Your task to perform on an android device: set default search engine in the chrome app Image 0: 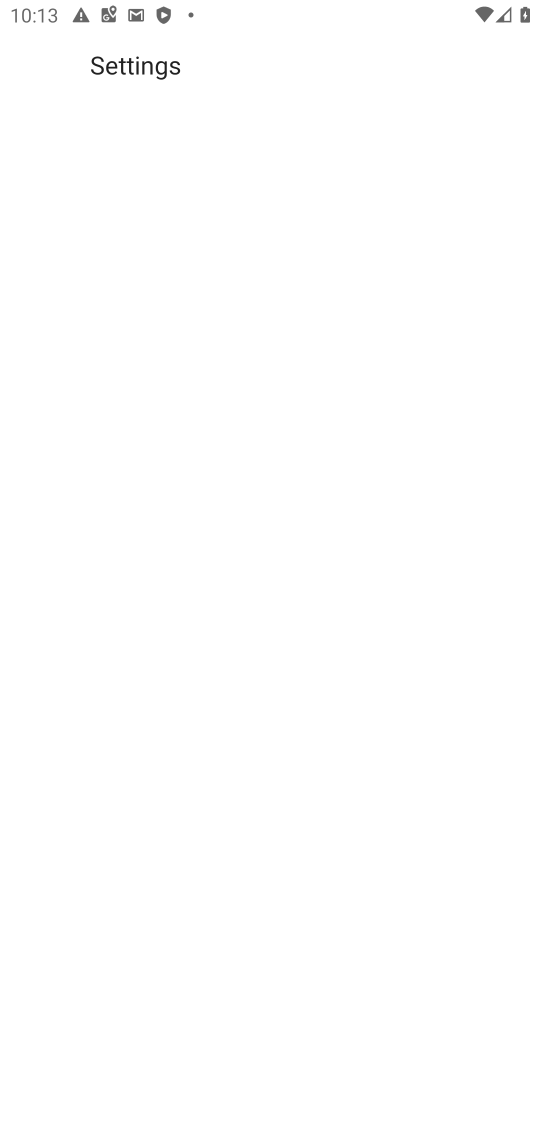
Step 0: drag from (290, 963) to (287, 78)
Your task to perform on an android device: set default search engine in the chrome app Image 1: 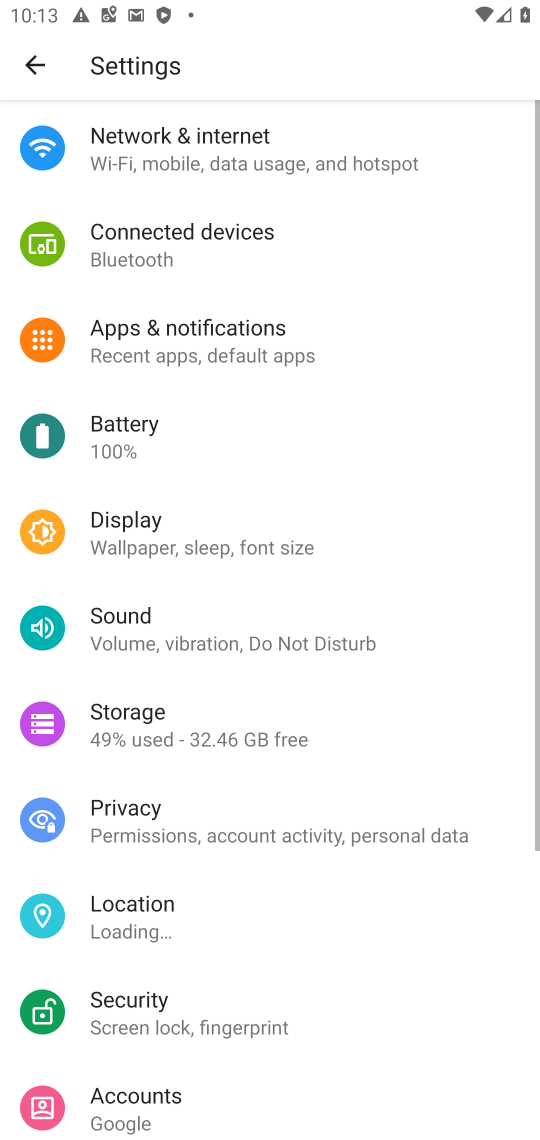
Step 1: press home button
Your task to perform on an android device: set default search engine in the chrome app Image 2: 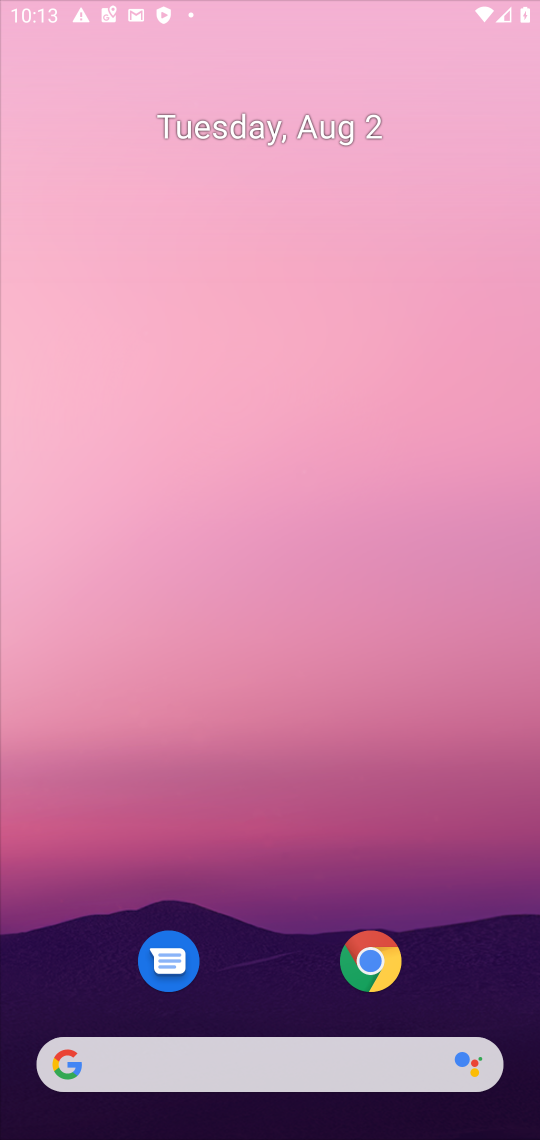
Step 2: drag from (267, 980) to (324, 152)
Your task to perform on an android device: set default search engine in the chrome app Image 3: 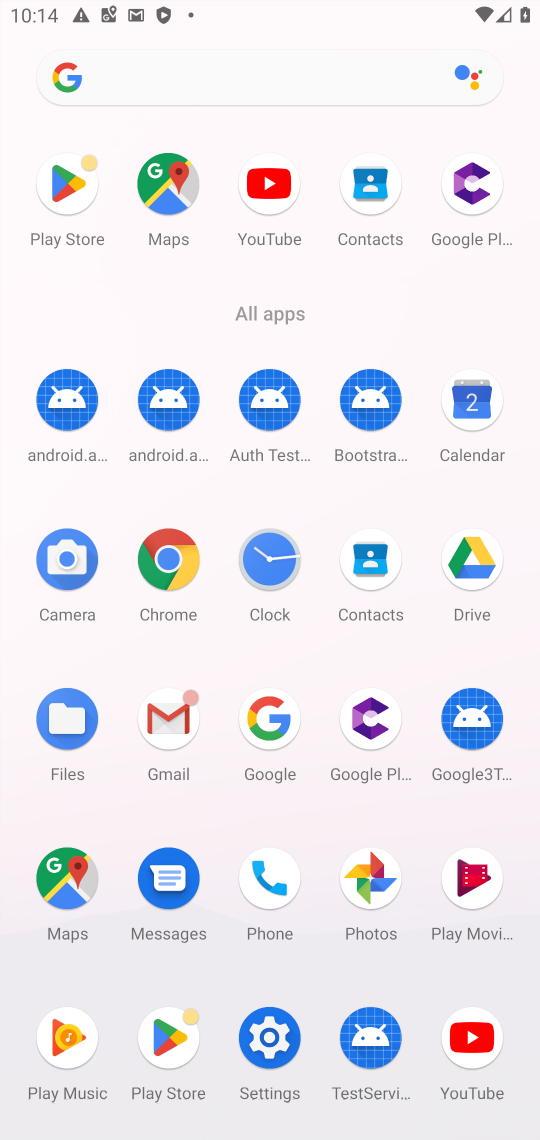
Step 3: click (195, 560)
Your task to perform on an android device: set default search engine in the chrome app Image 4: 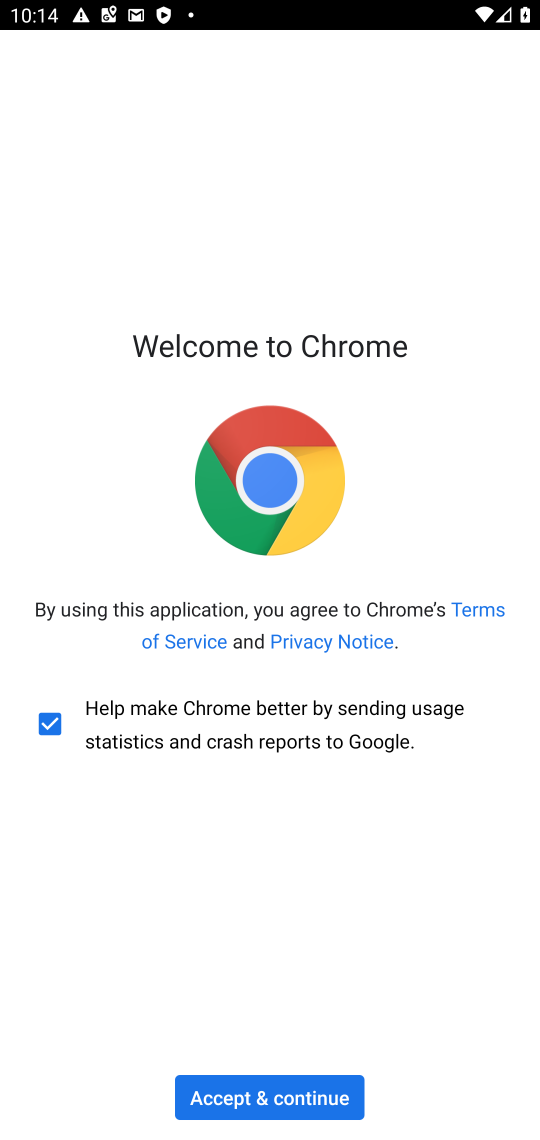
Step 4: click (268, 1096)
Your task to perform on an android device: set default search engine in the chrome app Image 5: 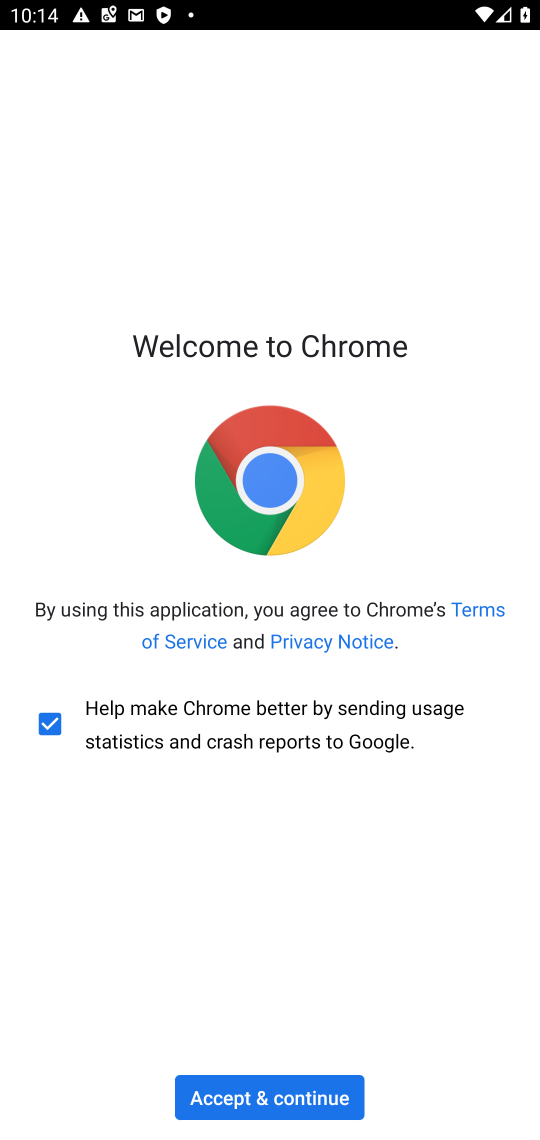
Step 5: click (309, 1104)
Your task to perform on an android device: set default search engine in the chrome app Image 6: 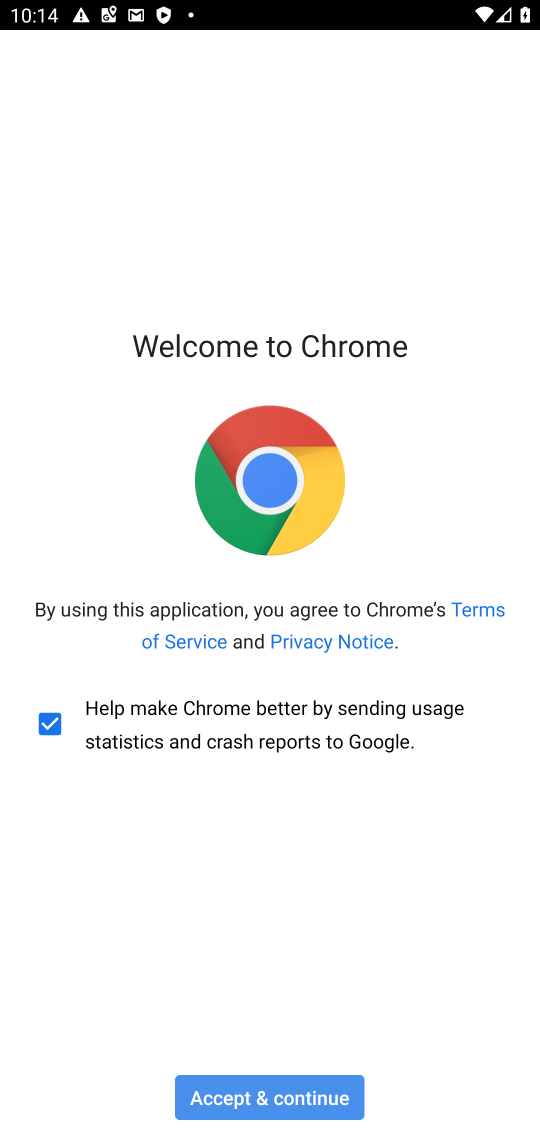
Step 6: click (512, 1108)
Your task to perform on an android device: set default search engine in the chrome app Image 7: 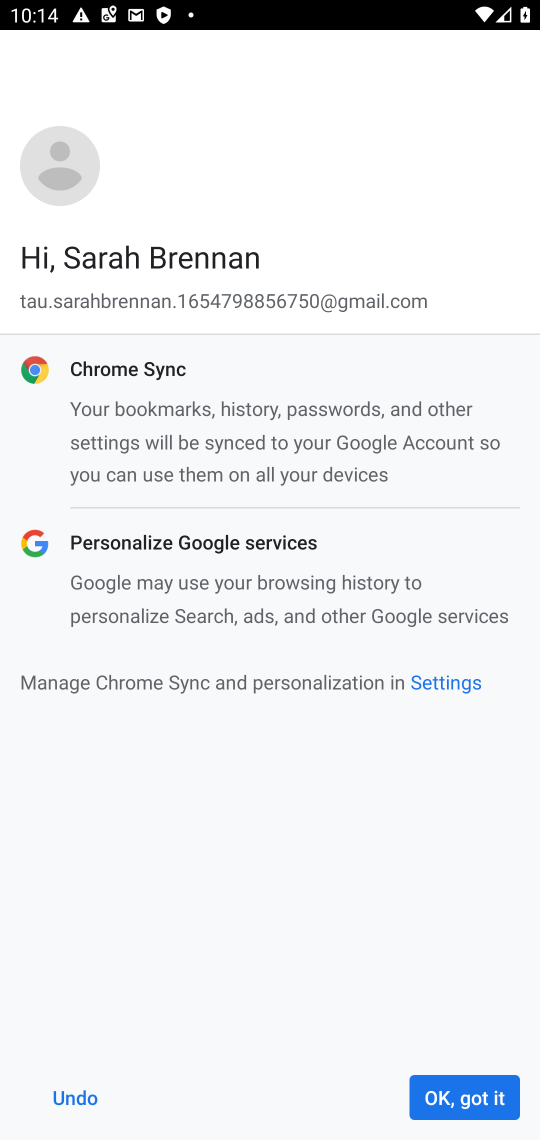
Step 7: click (512, 1108)
Your task to perform on an android device: set default search engine in the chrome app Image 8: 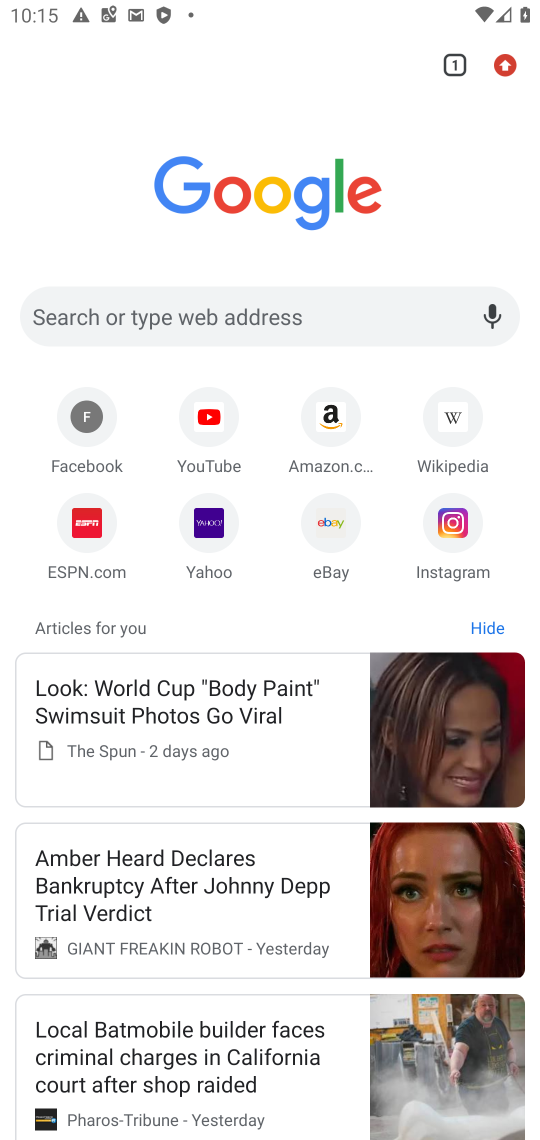
Step 8: click (497, 69)
Your task to perform on an android device: set default search engine in the chrome app Image 9: 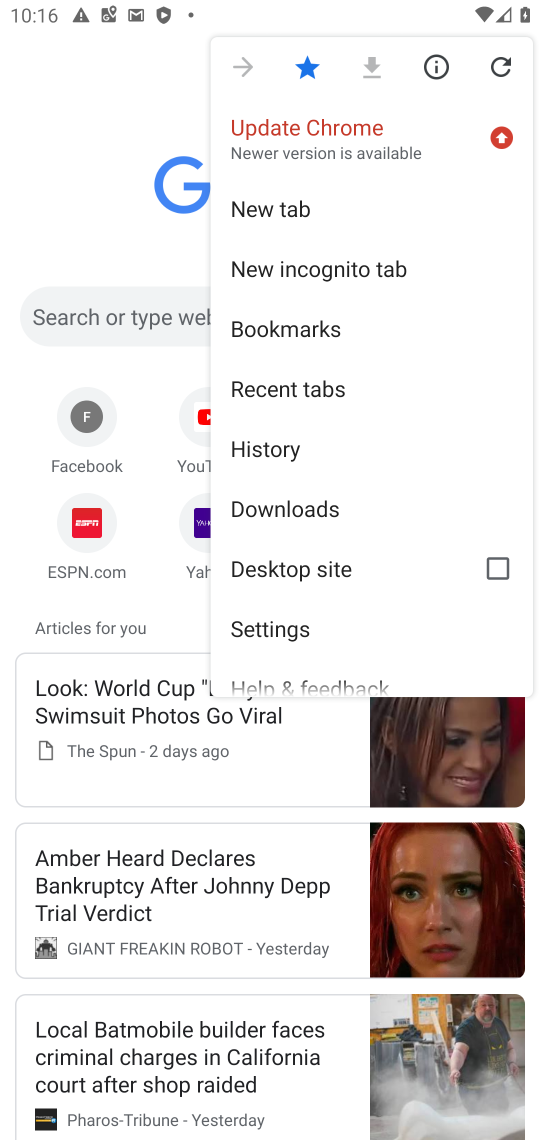
Step 9: click (258, 621)
Your task to perform on an android device: set default search engine in the chrome app Image 10: 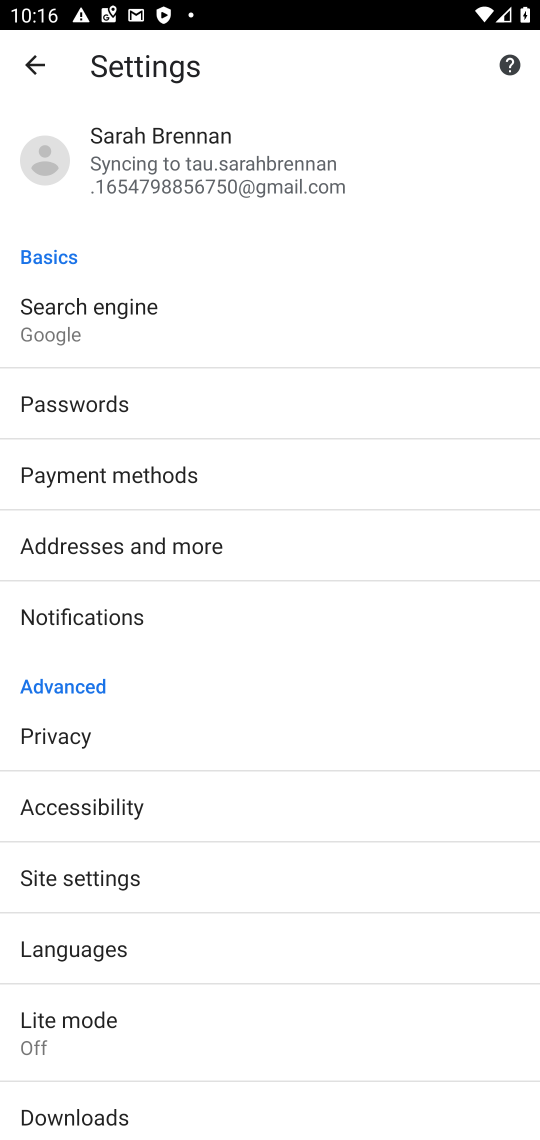
Step 10: click (81, 310)
Your task to perform on an android device: set default search engine in the chrome app Image 11: 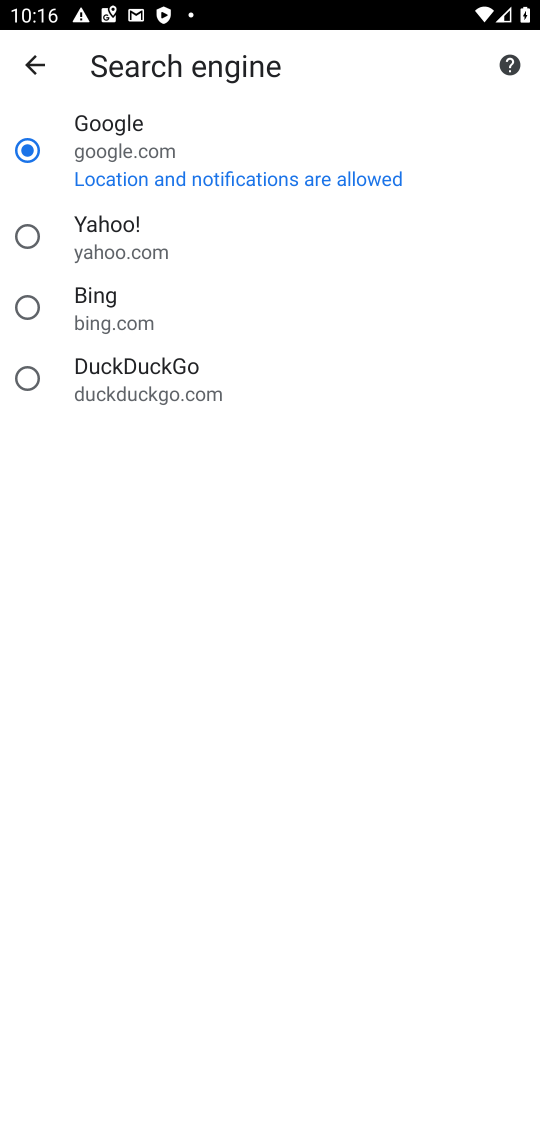
Step 11: task complete